Your task to perform on an android device: check storage Image 0: 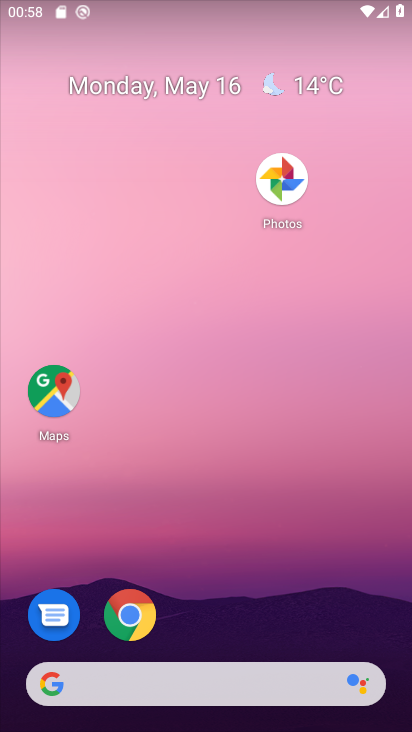
Step 0: drag from (295, 586) to (326, 187)
Your task to perform on an android device: check storage Image 1: 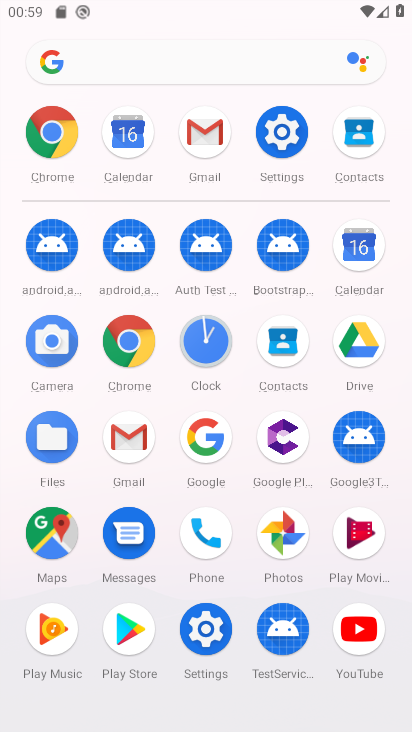
Step 1: click (219, 634)
Your task to perform on an android device: check storage Image 2: 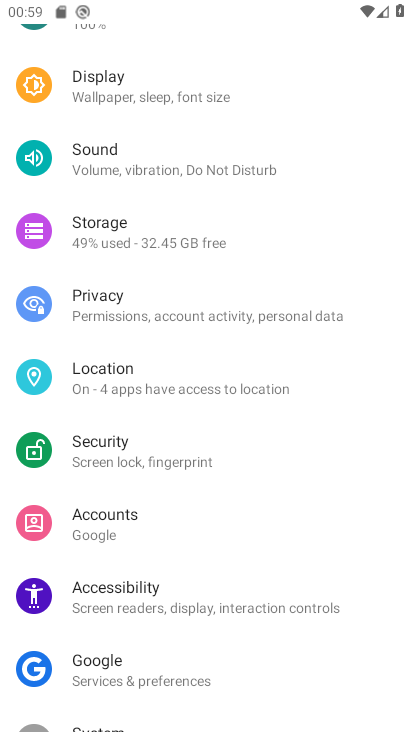
Step 2: click (109, 231)
Your task to perform on an android device: check storage Image 3: 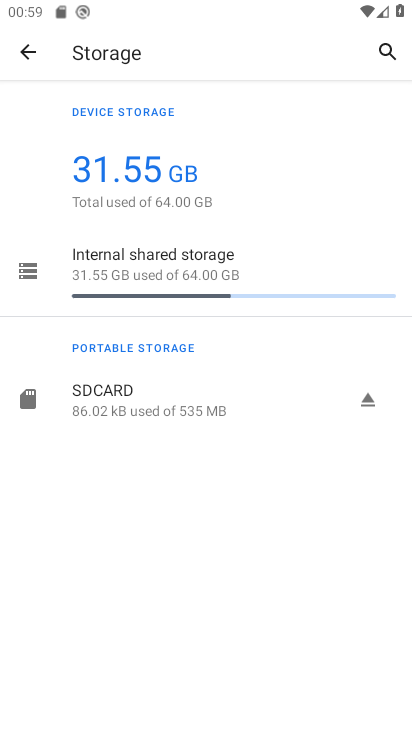
Step 3: click (22, 279)
Your task to perform on an android device: check storage Image 4: 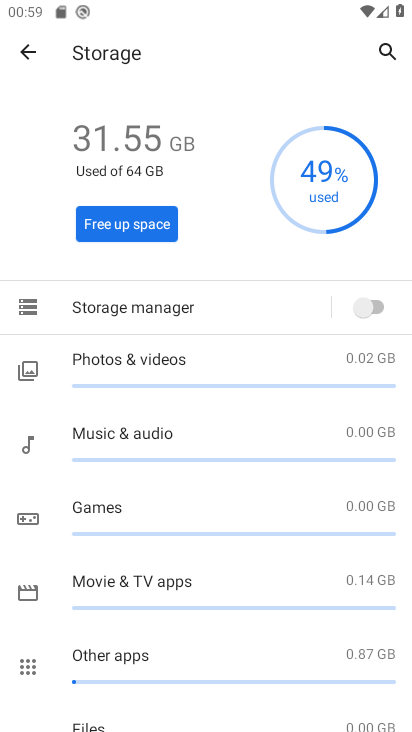
Step 4: task complete